Your task to perform on an android device: Search for razer blade on bestbuy, select the first entry, add it to the cart, then select checkout. Image 0: 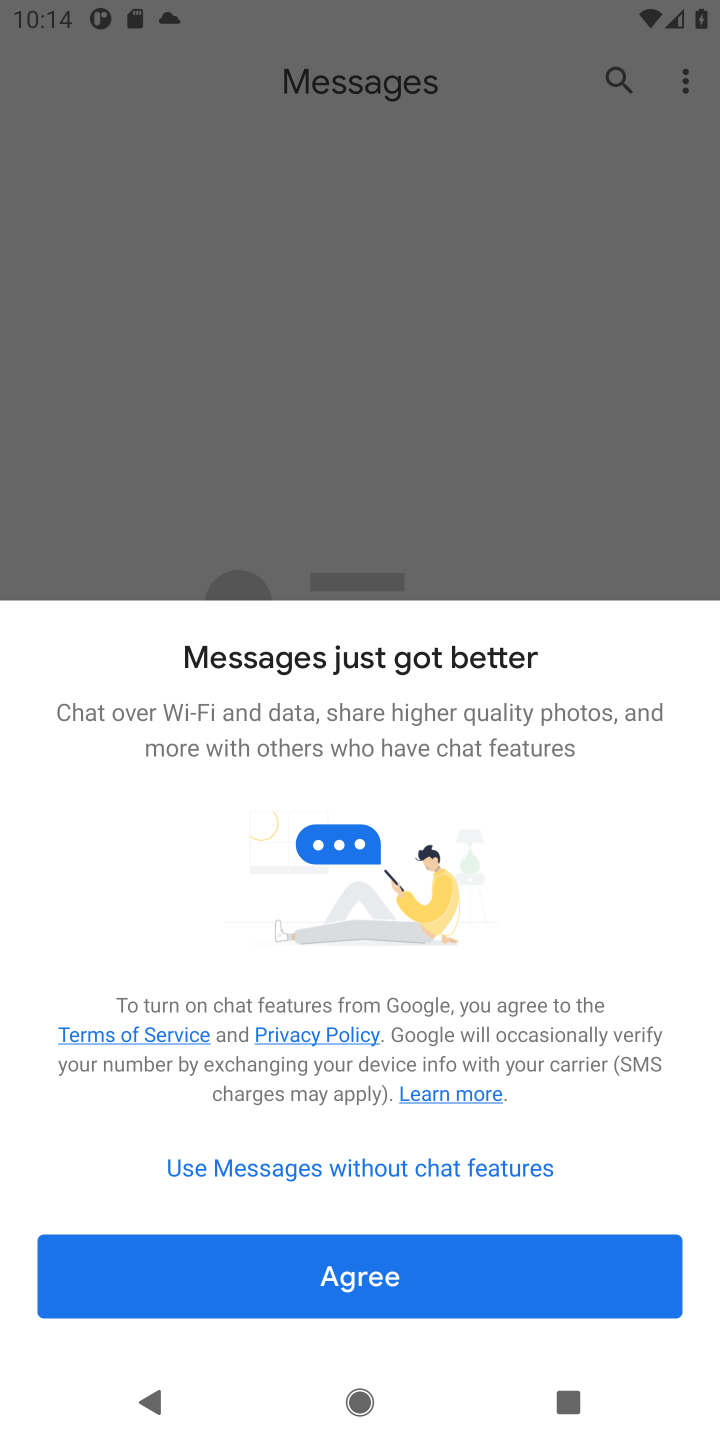
Step 0: press home button
Your task to perform on an android device: Search for razer blade on bestbuy, select the first entry, add it to the cart, then select checkout. Image 1: 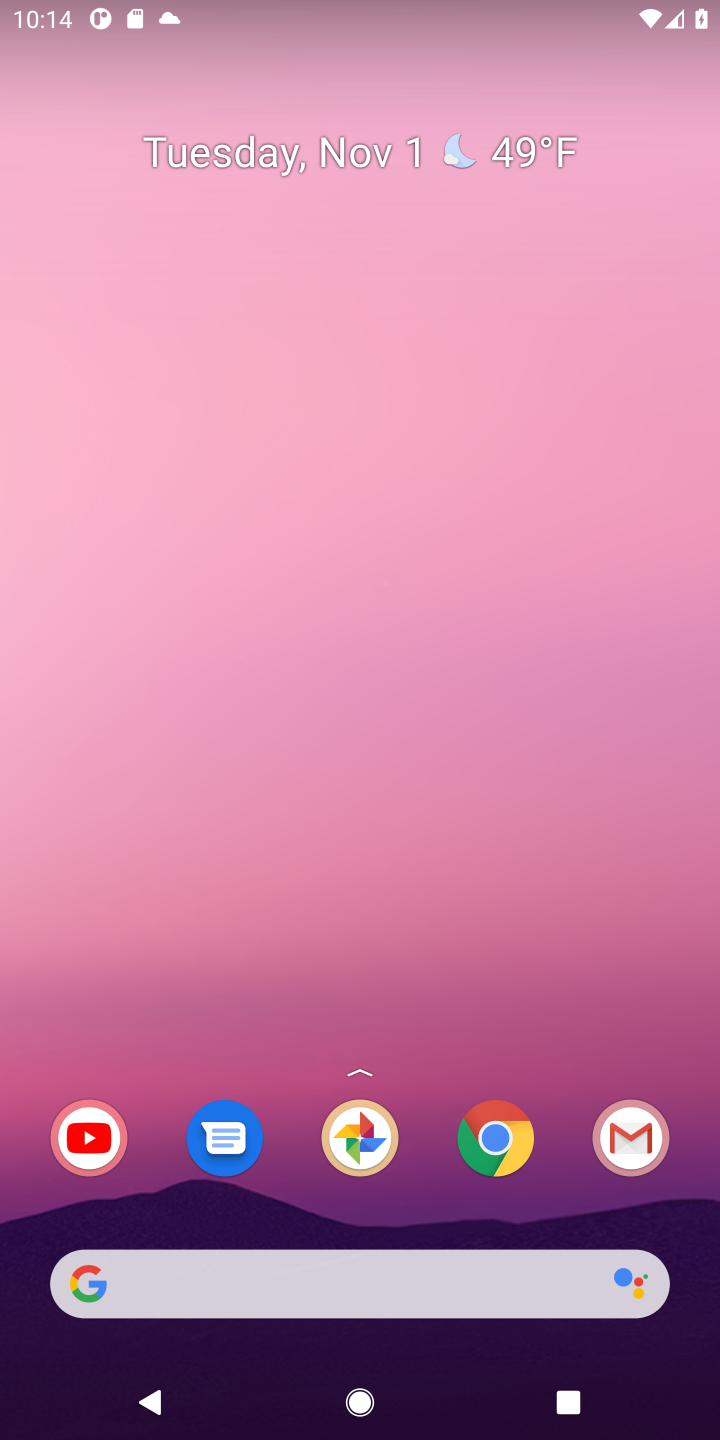
Step 1: click (498, 1138)
Your task to perform on an android device: Search for razer blade on bestbuy, select the first entry, add it to the cart, then select checkout. Image 2: 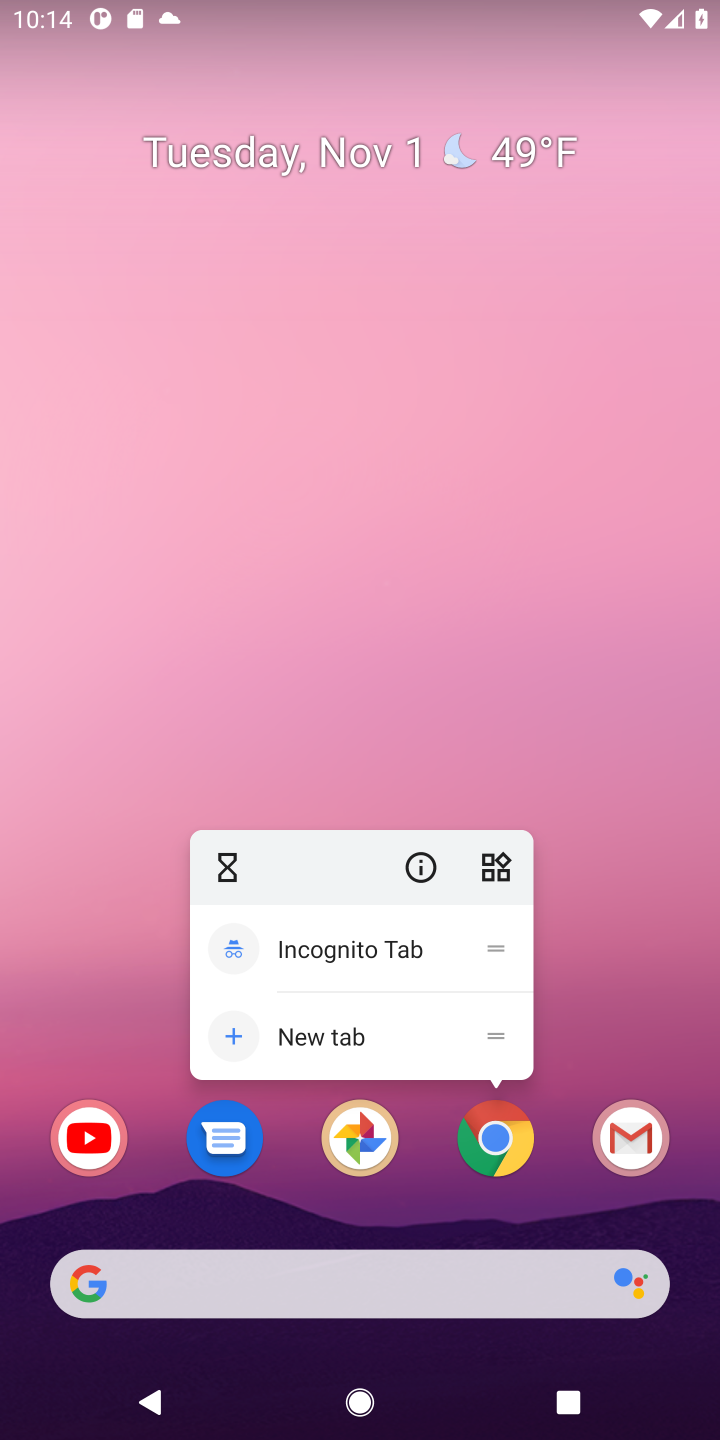
Step 2: click (487, 1128)
Your task to perform on an android device: Search for razer blade on bestbuy, select the first entry, add it to the cart, then select checkout. Image 3: 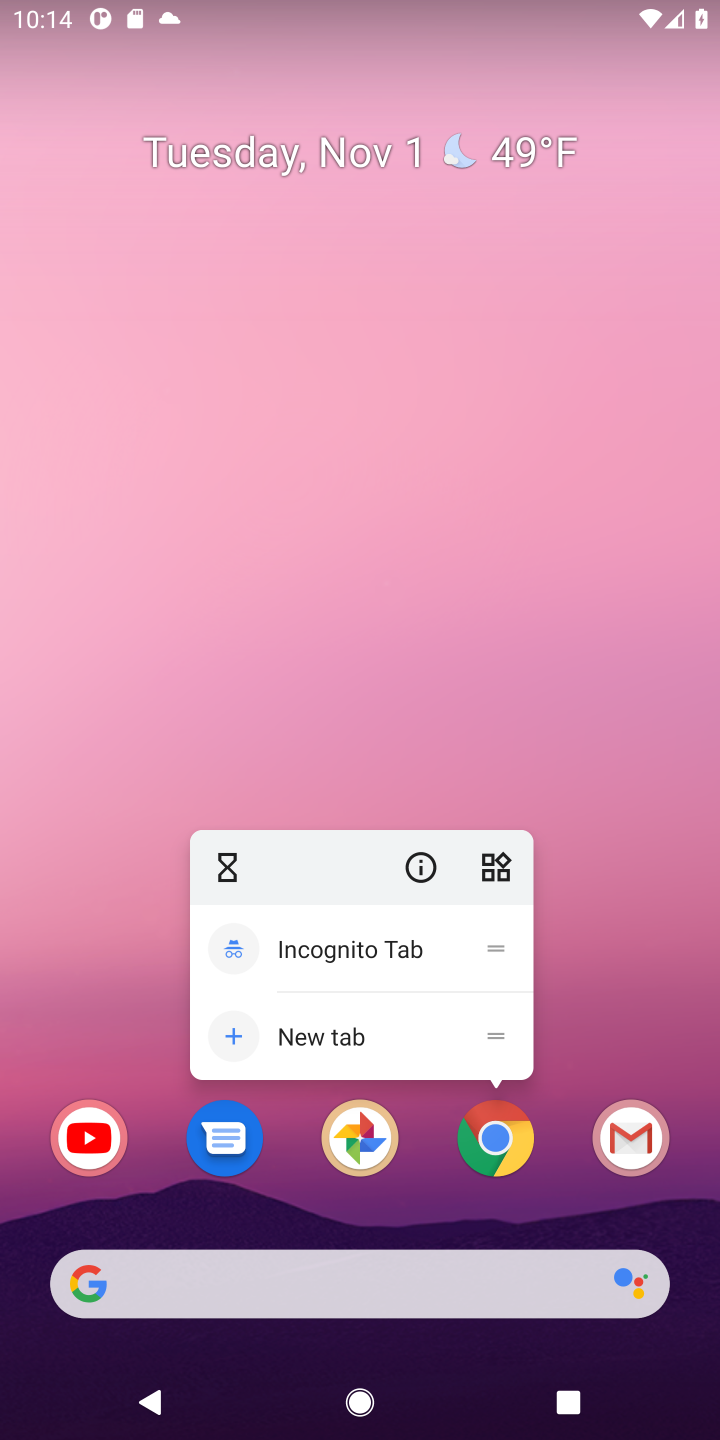
Step 3: click (496, 1141)
Your task to perform on an android device: Search for razer blade on bestbuy, select the first entry, add it to the cart, then select checkout. Image 4: 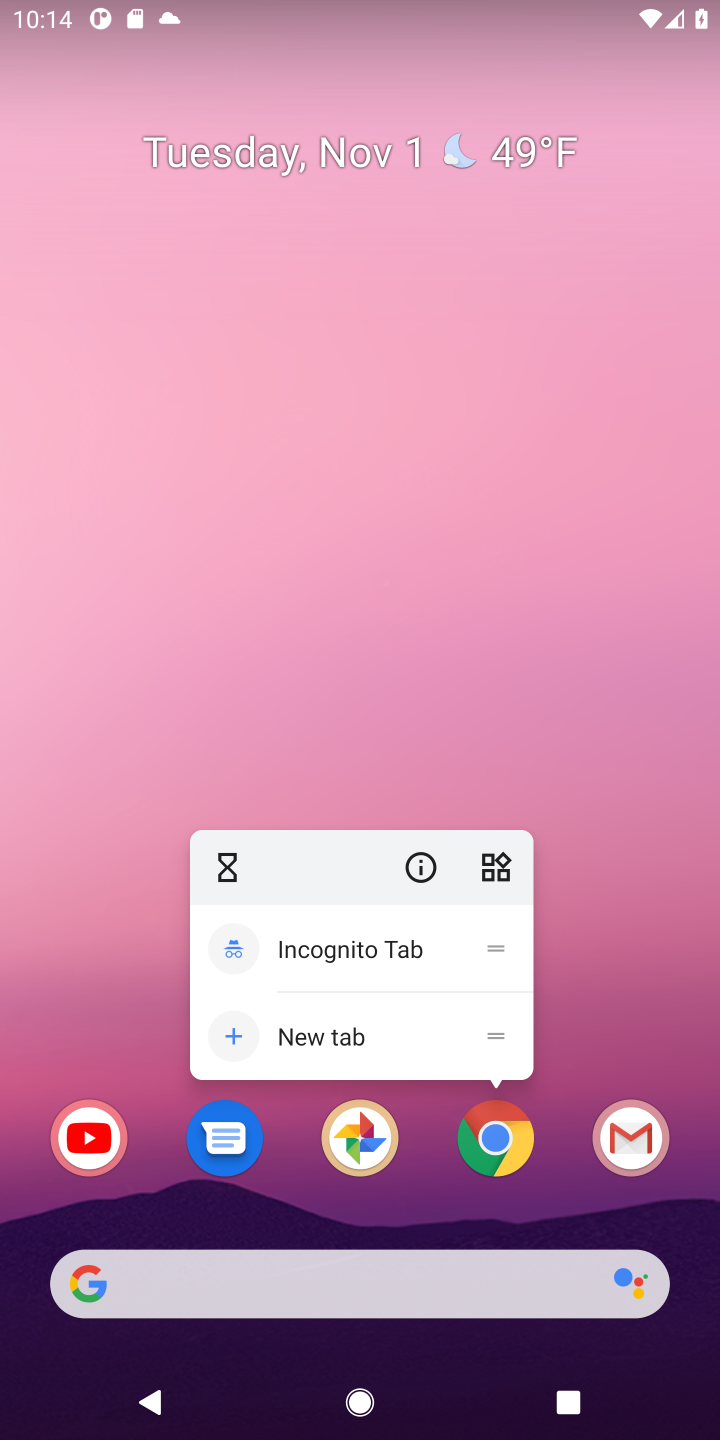
Step 4: click (493, 1134)
Your task to perform on an android device: Search for razer blade on bestbuy, select the first entry, add it to the cart, then select checkout. Image 5: 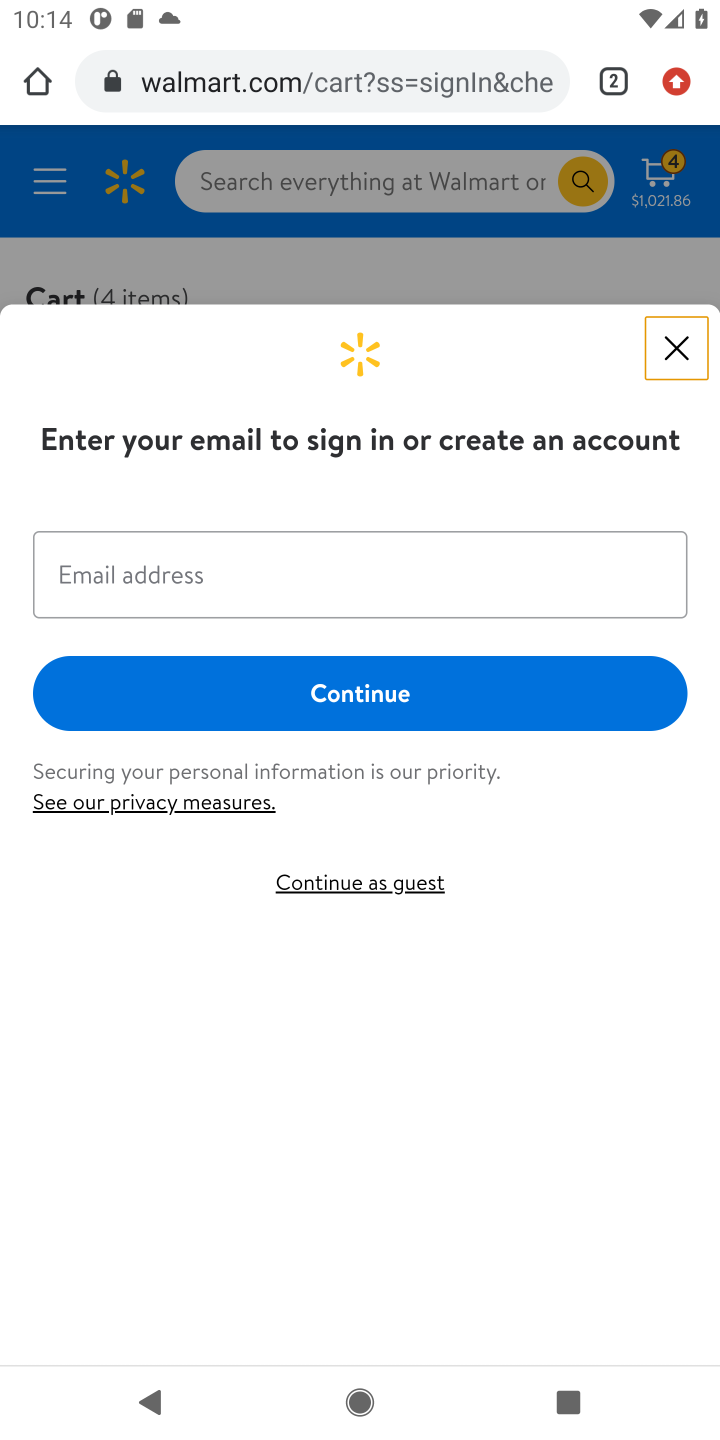
Step 5: click (417, 98)
Your task to perform on an android device: Search for razer blade on bestbuy, select the first entry, add it to the cart, then select checkout. Image 6: 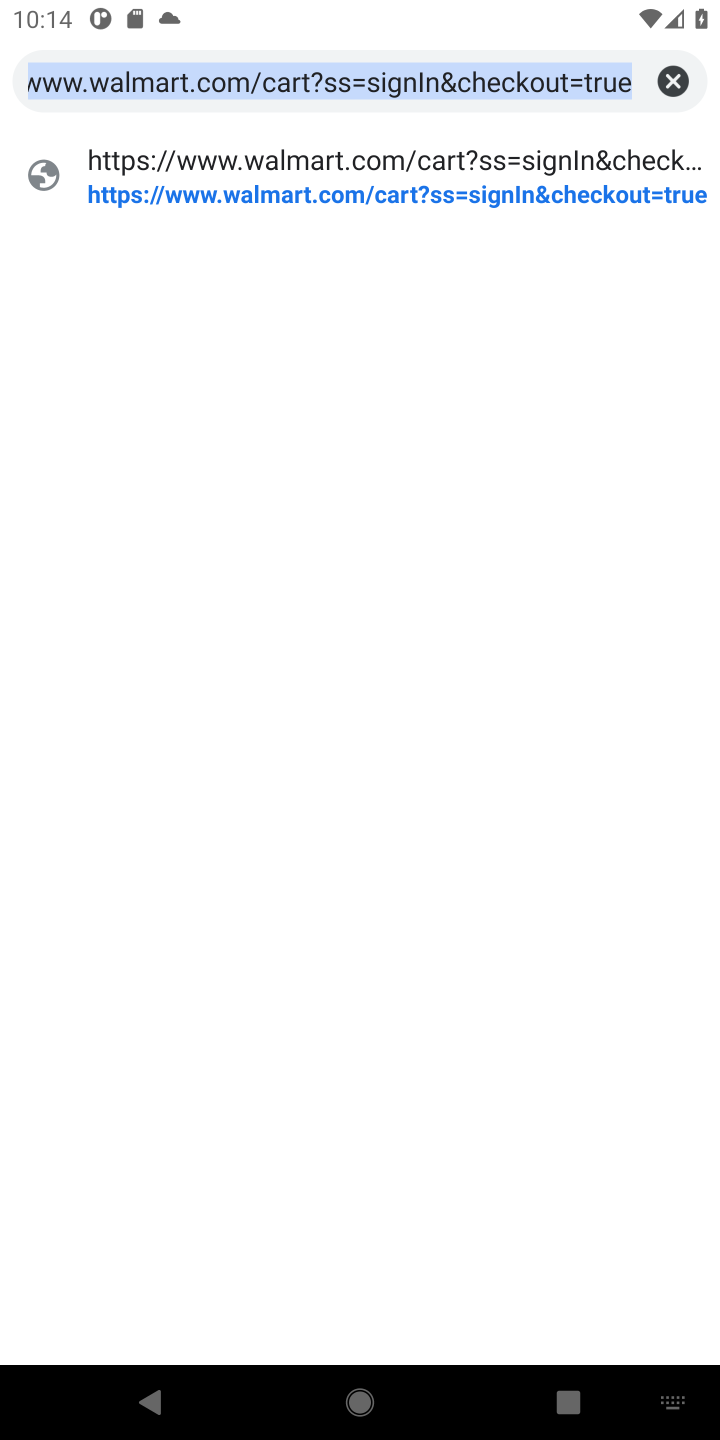
Step 6: click (667, 74)
Your task to perform on an android device: Search for razer blade on bestbuy, select the first entry, add it to the cart, then select checkout. Image 7: 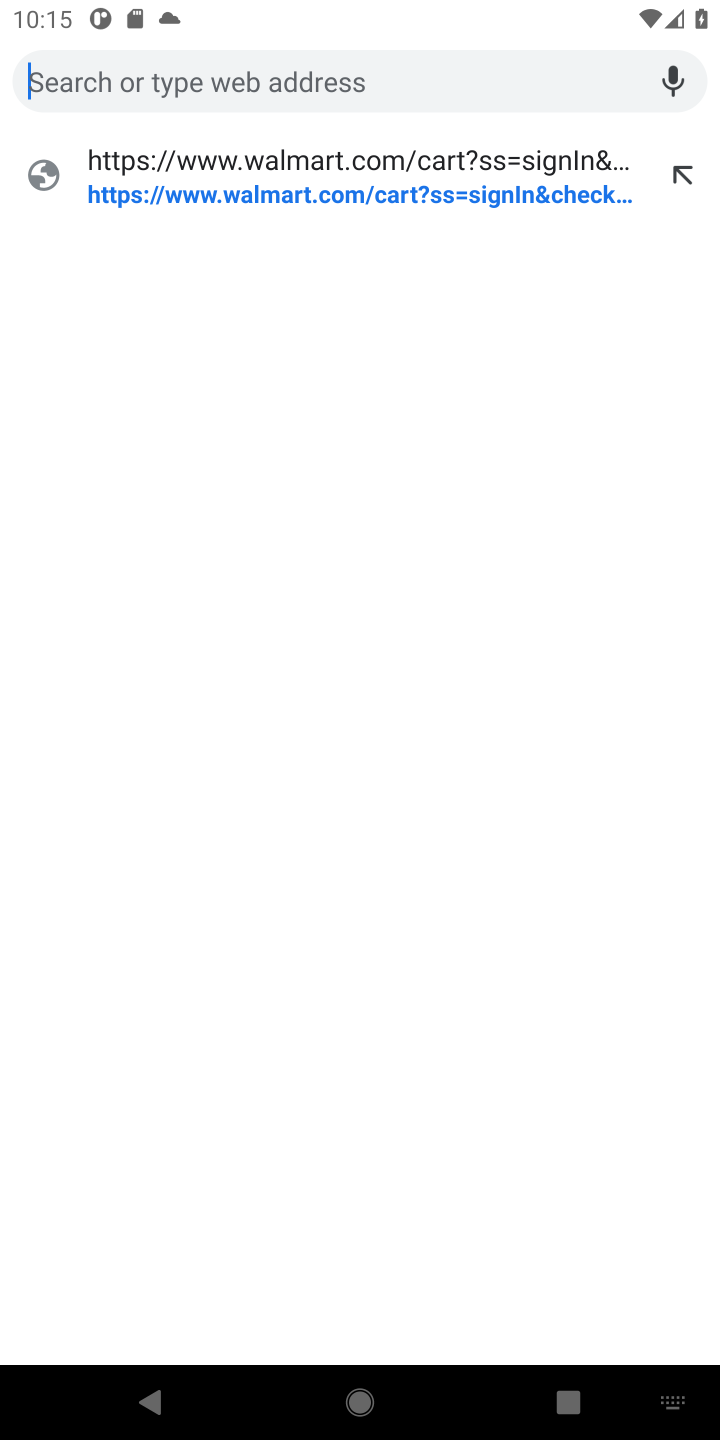
Step 7: type "bsetbuy"
Your task to perform on an android device: Search for razer blade on bestbuy, select the first entry, add it to the cart, then select checkout. Image 8: 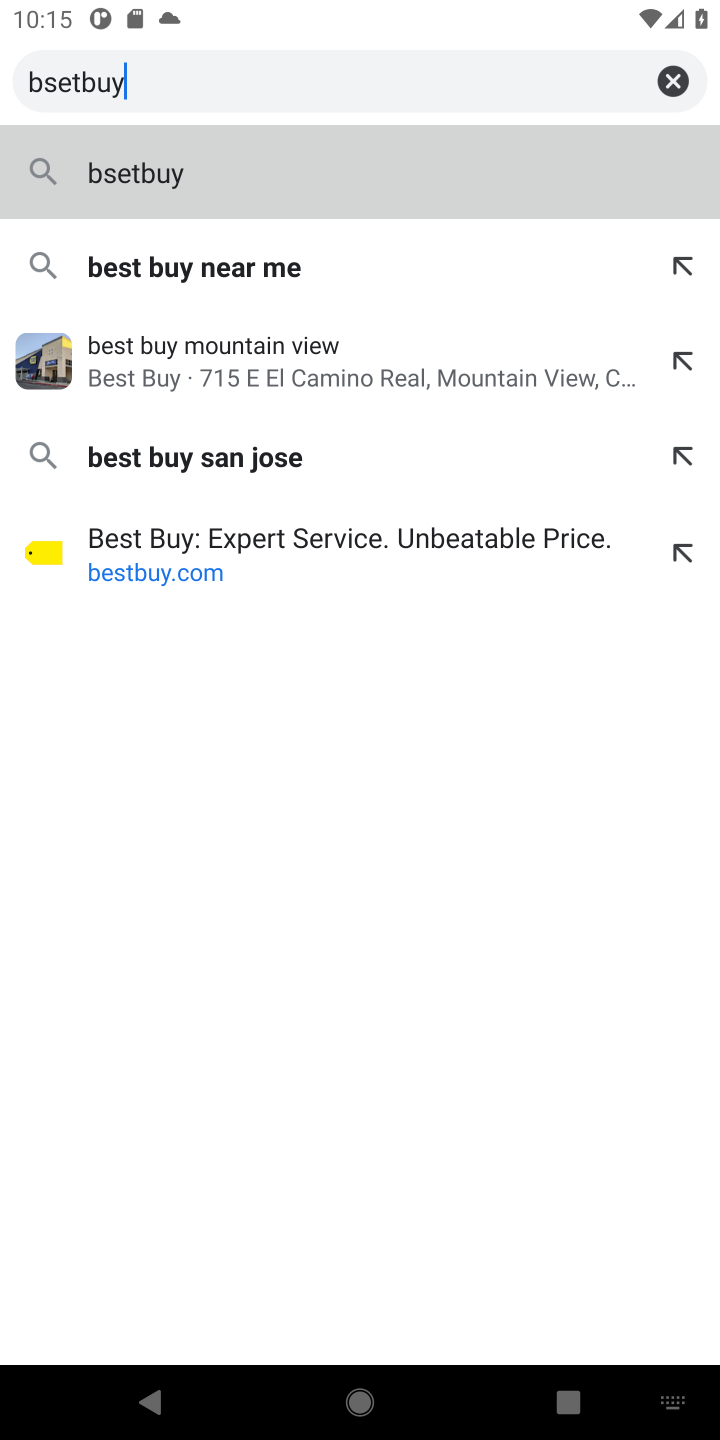
Step 8: click (206, 188)
Your task to perform on an android device: Search for razer blade on bestbuy, select the first entry, add it to the cart, then select checkout. Image 9: 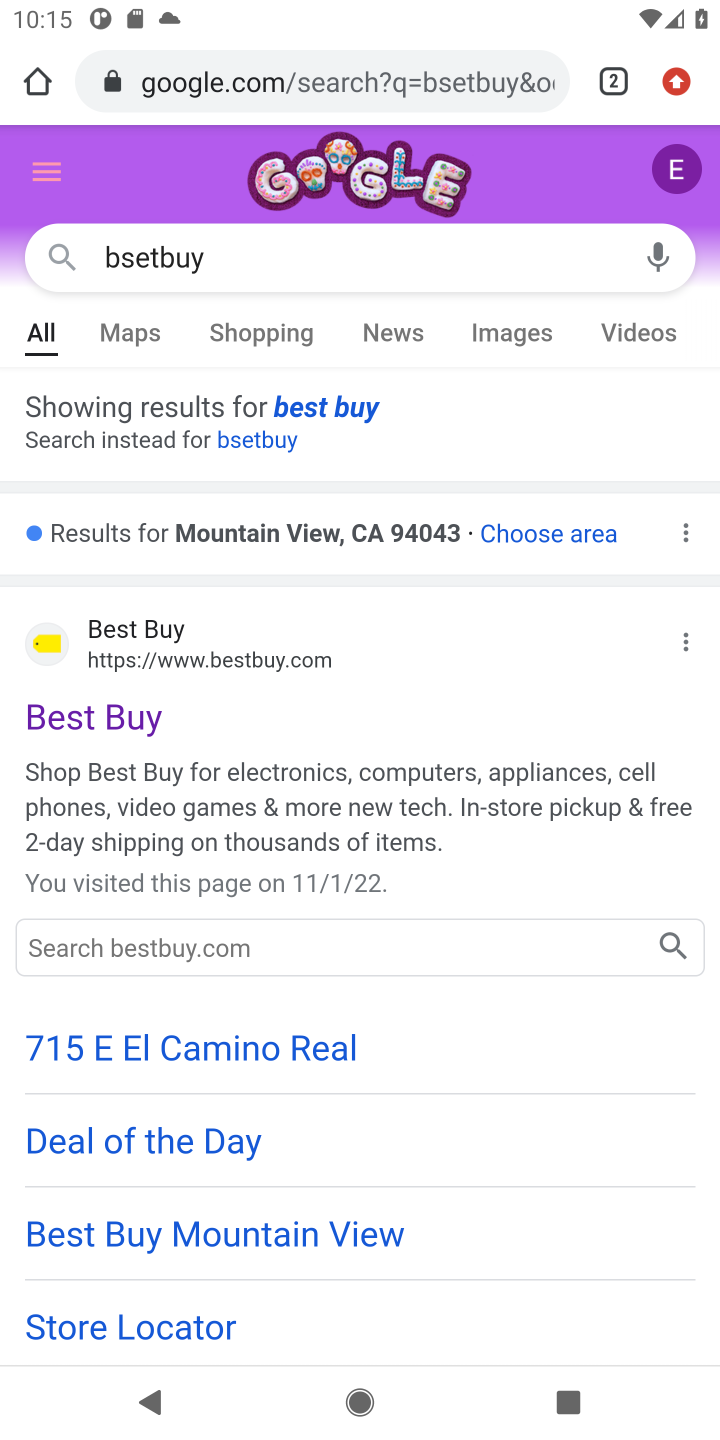
Step 9: click (141, 718)
Your task to perform on an android device: Search for razer blade on bestbuy, select the first entry, add it to the cart, then select checkout. Image 10: 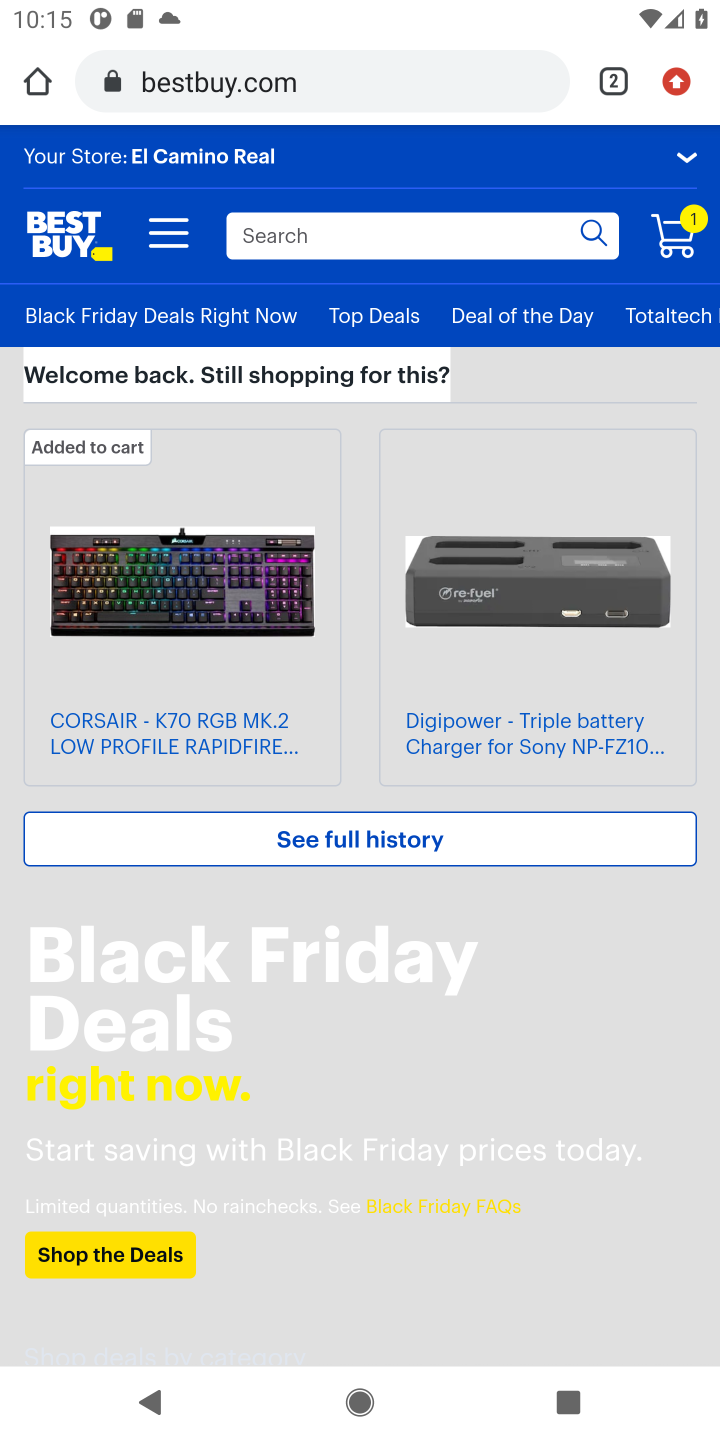
Step 10: click (350, 239)
Your task to perform on an android device: Search for razer blade on bestbuy, select the first entry, add it to the cart, then select checkout. Image 11: 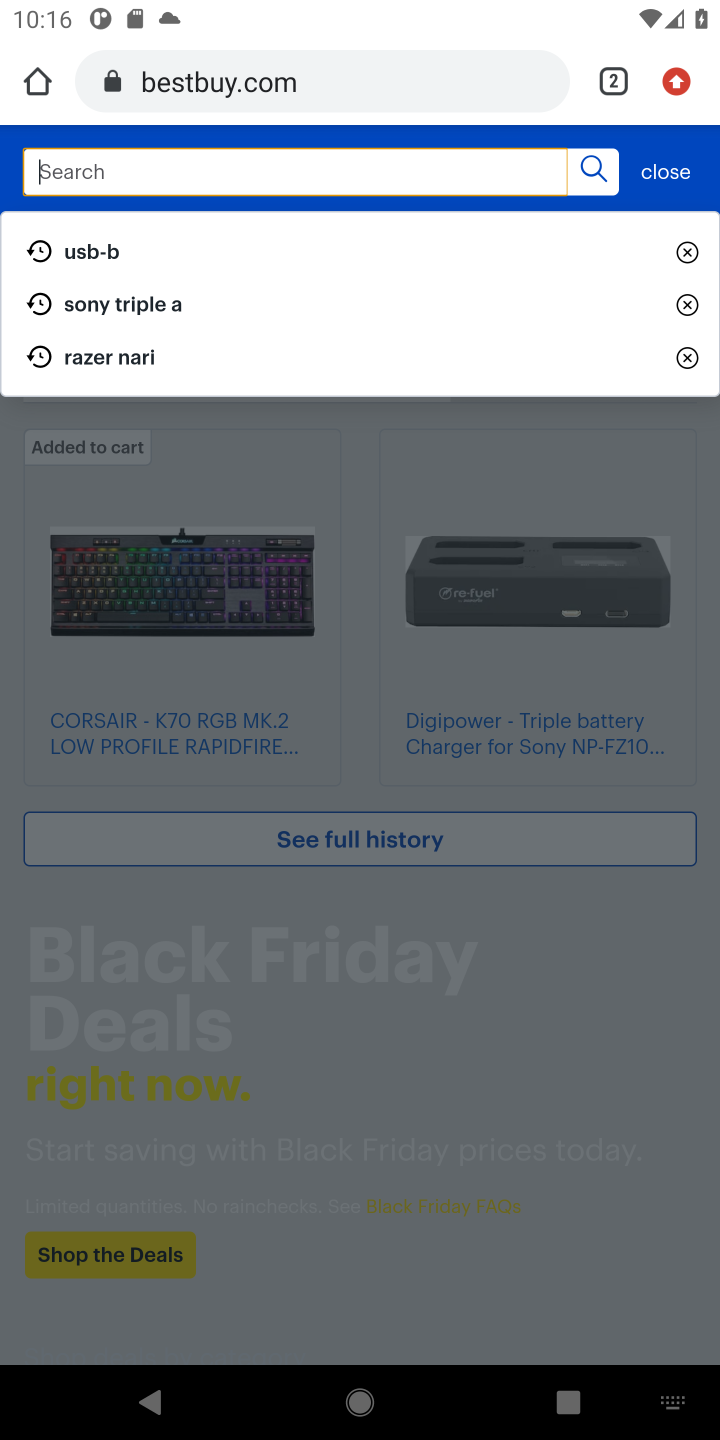
Step 11: type "razer blade"
Your task to perform on an android device: Search for razer blade on bestbuy, select the first entry, add it to the cart, then select checkout. Image 12: 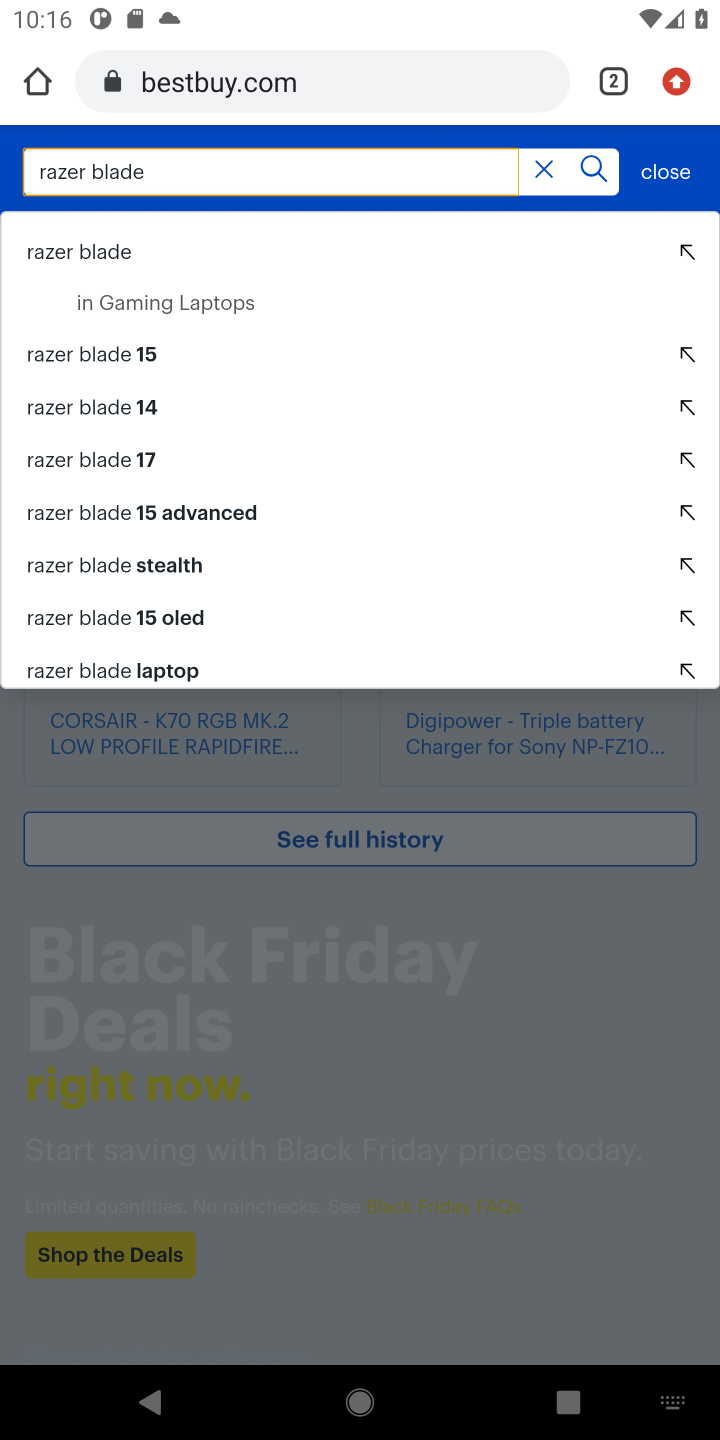
Step 12: click (114, 255)
Your task to perform on an android device: Search for razer blade on bestbuy, select the first entry, add it to the cart, then select checkout. Image 13: 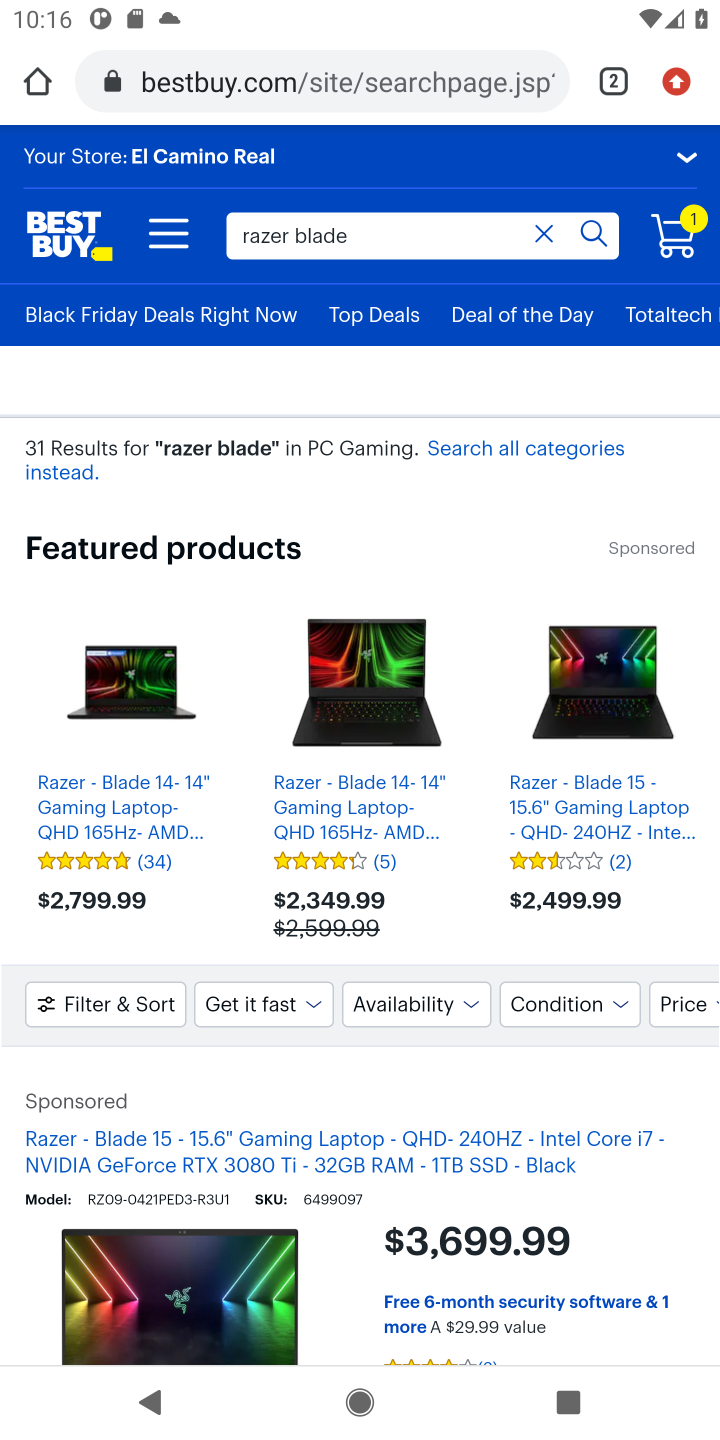
Step 13: click (471, 1152)
Your task to perform on an android device: Search for razer blade on bestbuy, select the first entry, add it to the cart, then select checkout. Image 14: 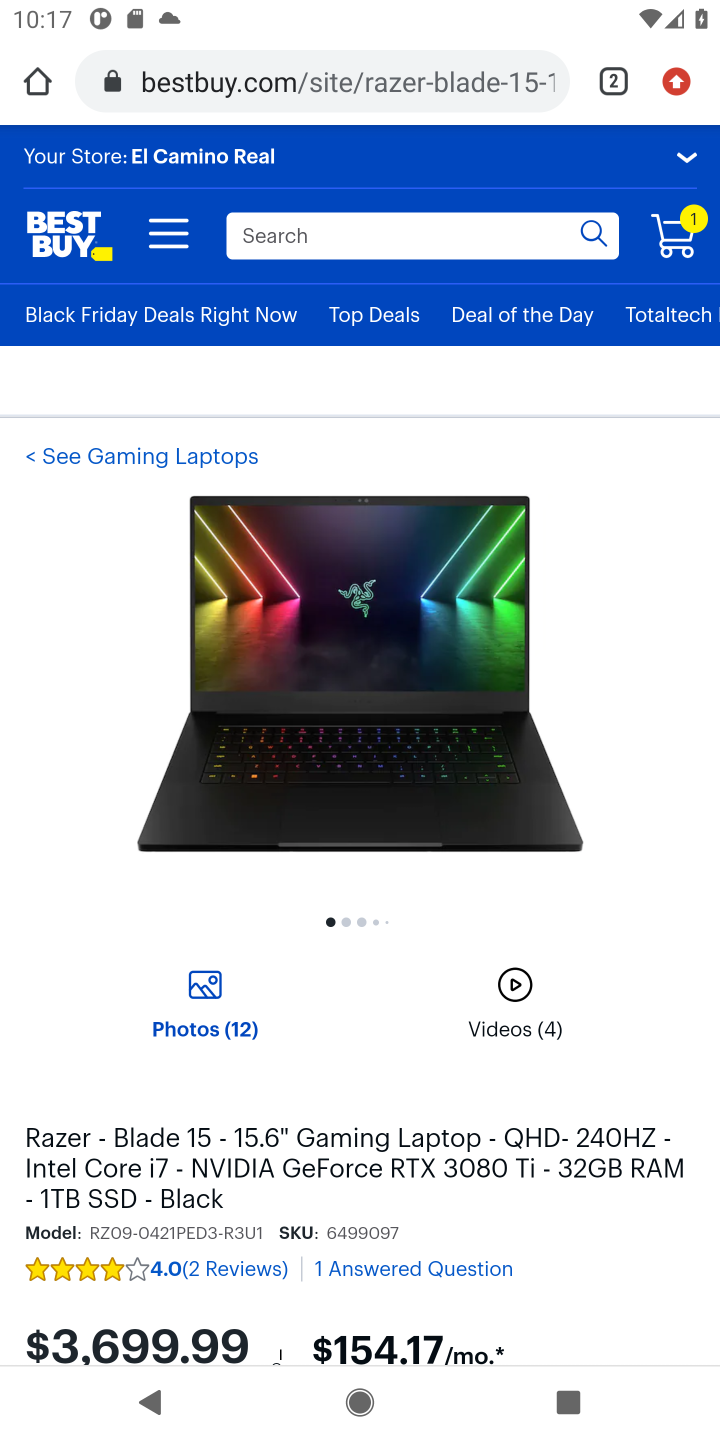
Step 14: drag from (563, 1253) to (563, 633)
Your task to perform on an android device: Search for razer blade on bestbuy, select the first entry, add it to the cart, then select checkout. Image 15: 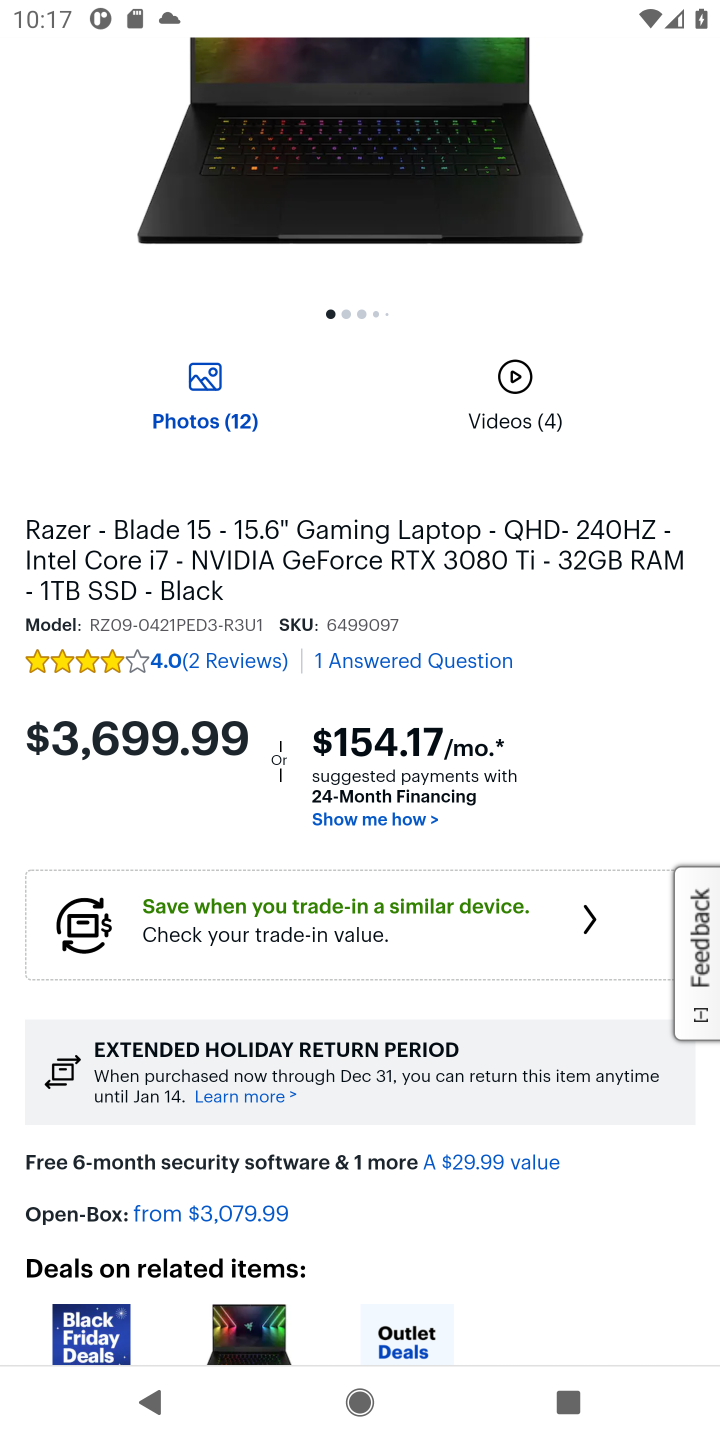
Step 15: drag from (524, 1183) to (531, 654)
Your task to perform on an android device: Search for razer blade on bestbuy, select the first entry, add it to the cart, then select checkout. Image 16: 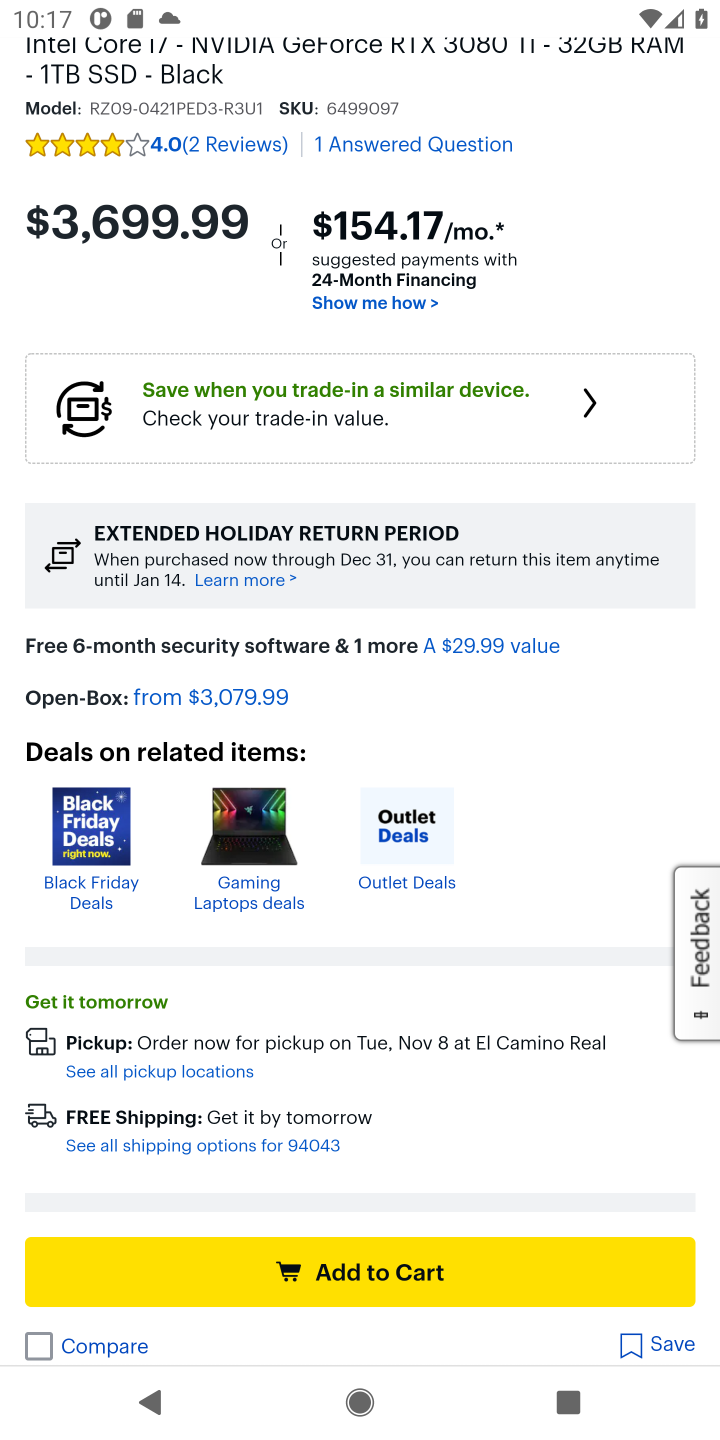
Step 16: click (363, 1260)
Your task to perform on an android device: Search for razer blade on bestbuy, select the first entry, add it to the cart, then select checkout. Image 17: 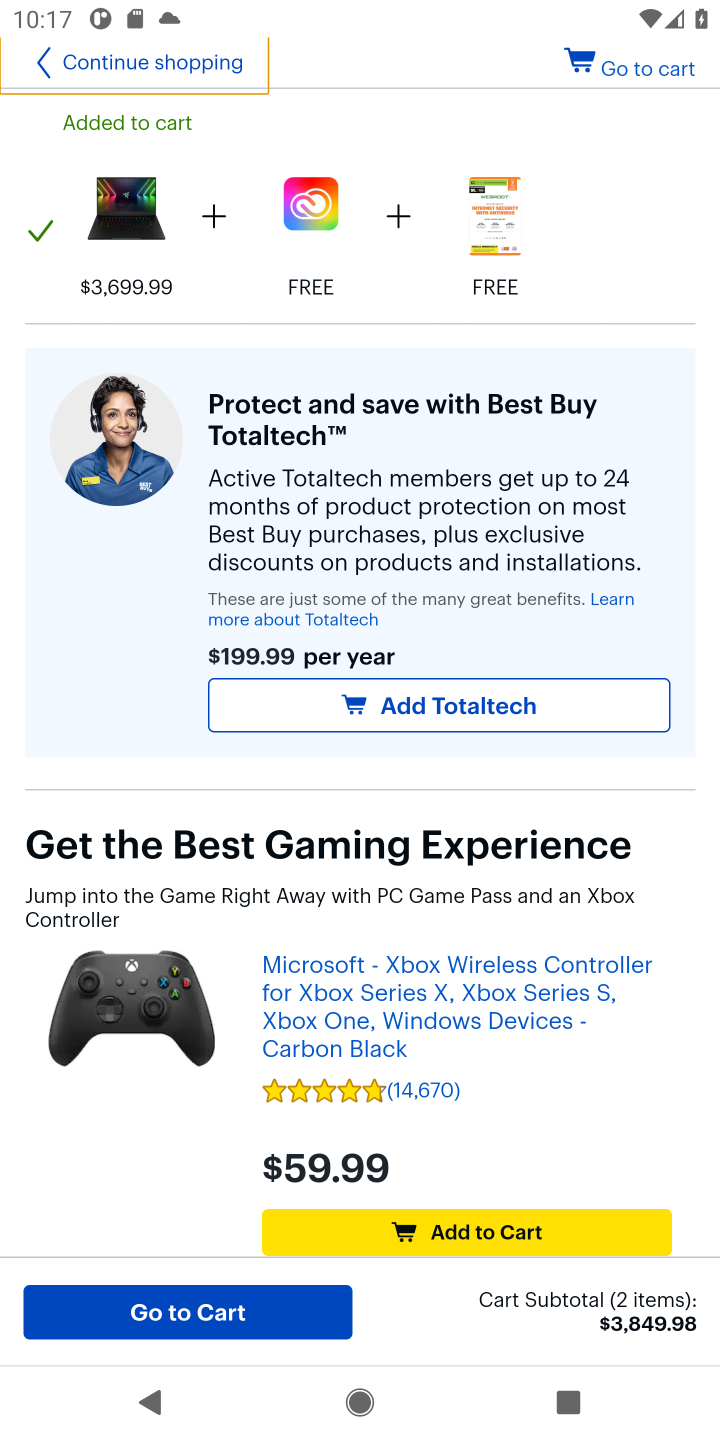
Step 17: click (192, 1323)
Your task to perform on an android device: Search for razer blade on bestbuy, select the first entry, add it to the cart, then select checkout. Image 18: 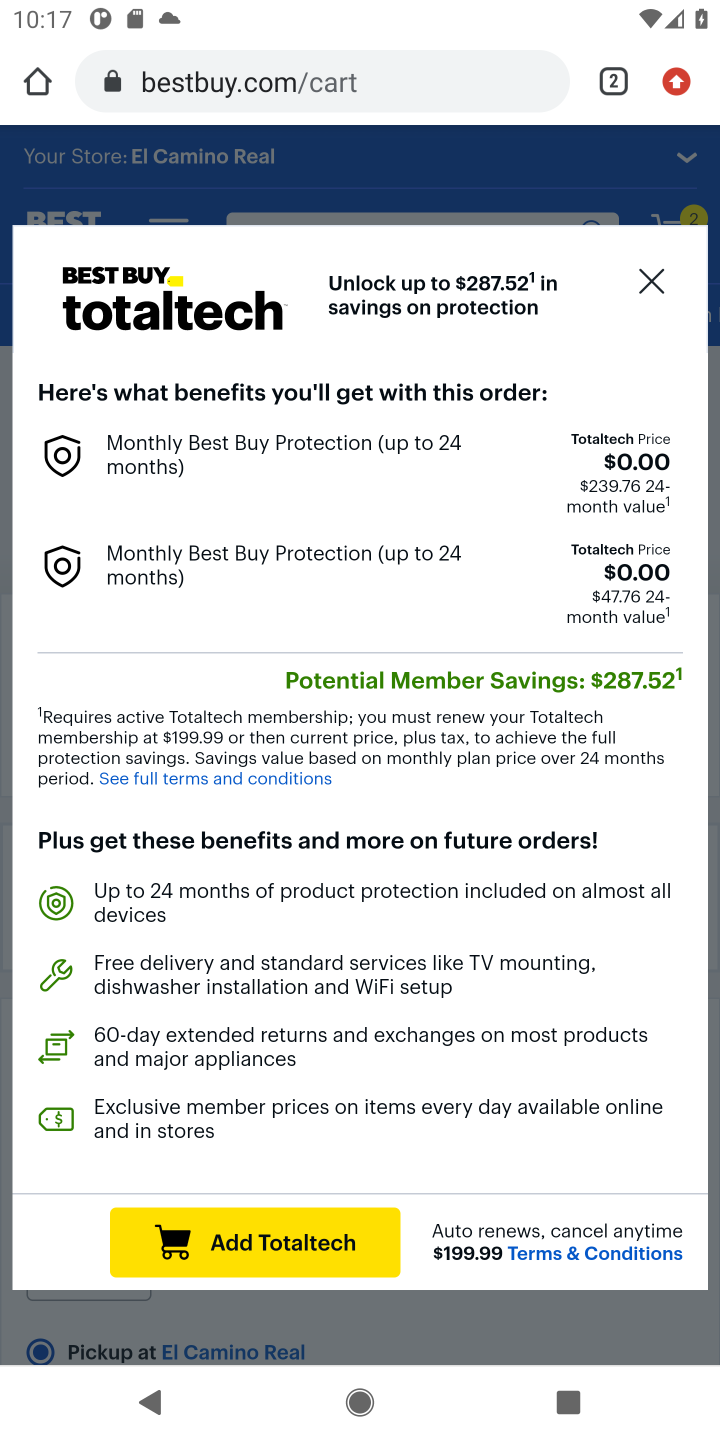
Step 18: click (648, 280)
Your task to perform on an android device: Search for razer blade on bestbuy, select the first entry, add it to the cart, then select checkout. Image 19: 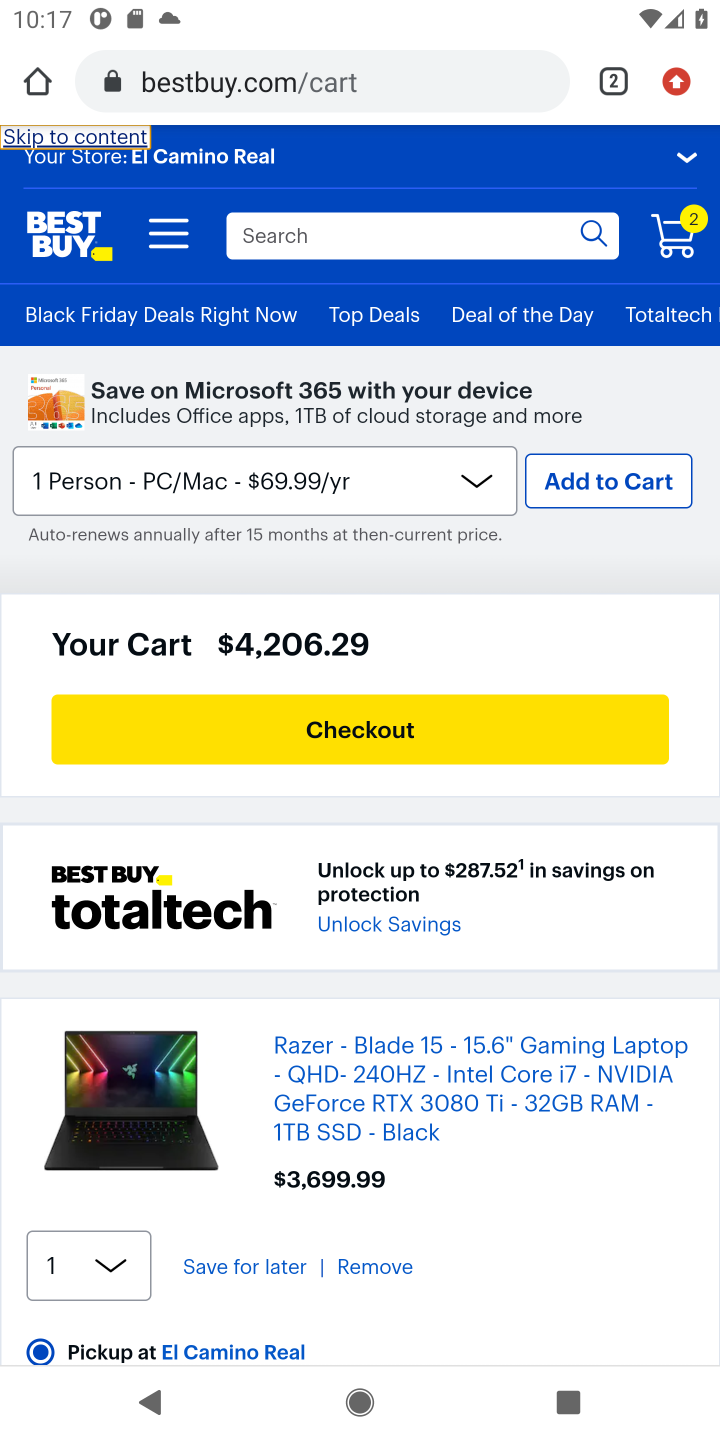
Step 19: click (385, 730)
Your task to perform on an android device: Search for razer blade on bestbuy, select the first entry, add it to the cart, then select checkout. Image 20: 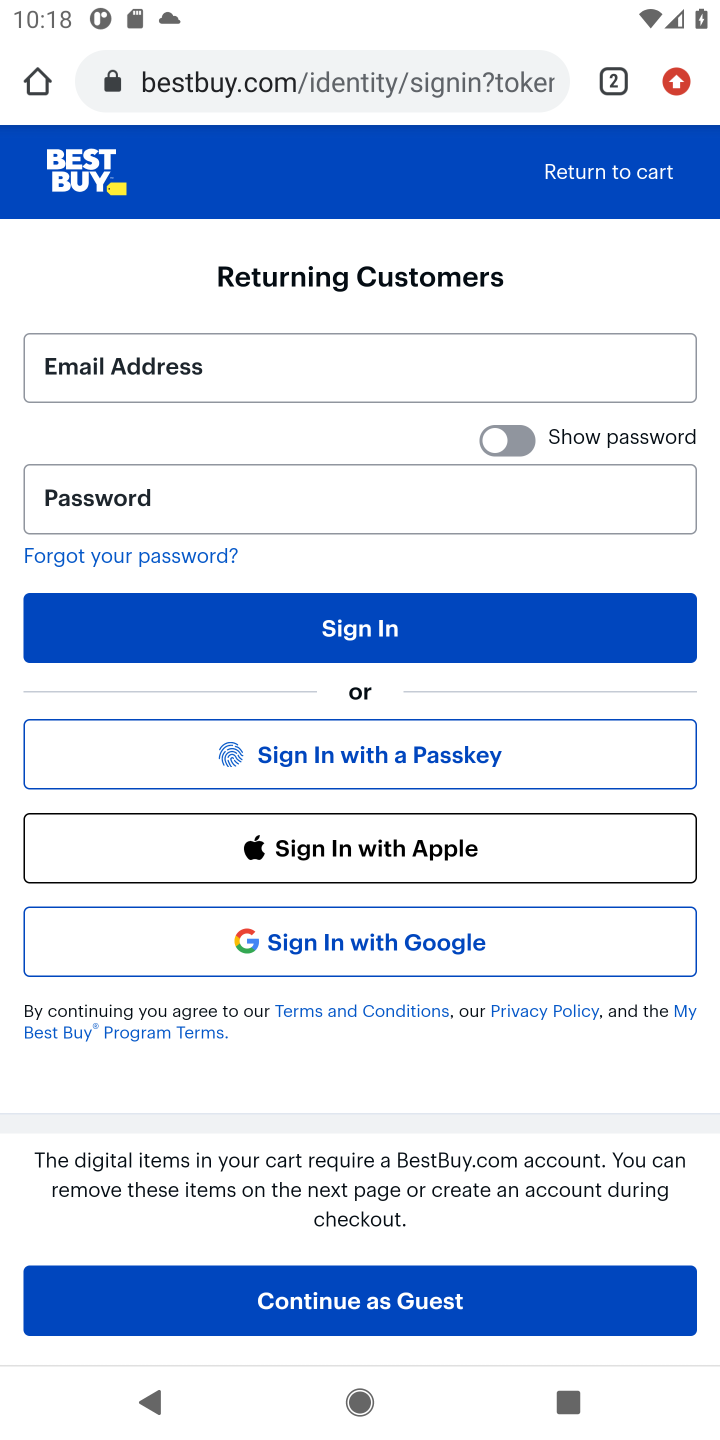
Step 20: task complete